Your task to perform on an android device: Open Google Chrome Image 0: 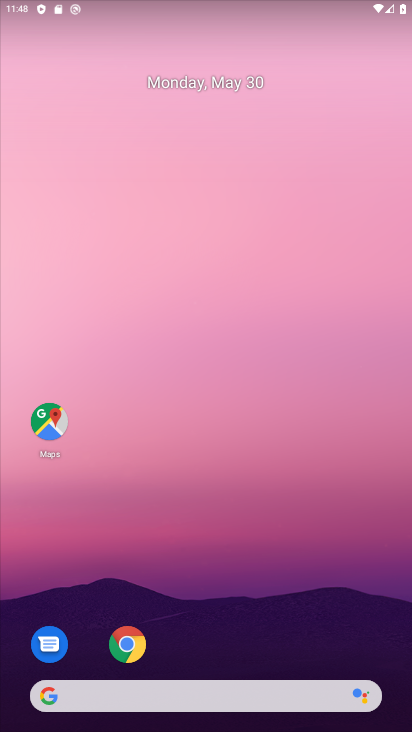
Step 0: drag from (258, 2) to (256, 46)
Your task to perform on an android device: Open Google Chrome Image 1: 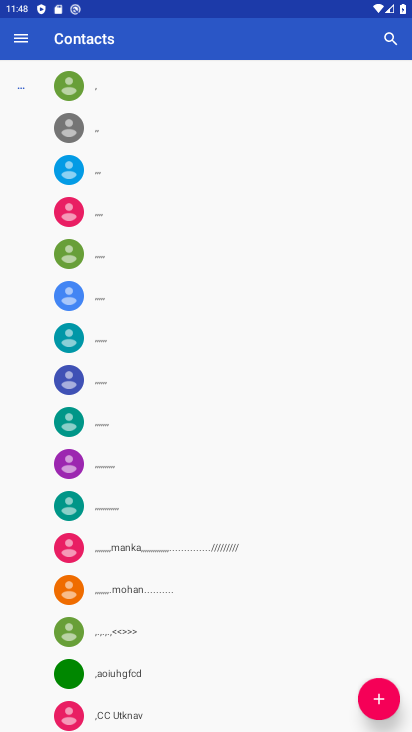
Step 1: press home button
Your task to perform on an android device: Open Google Chrome Image 2: 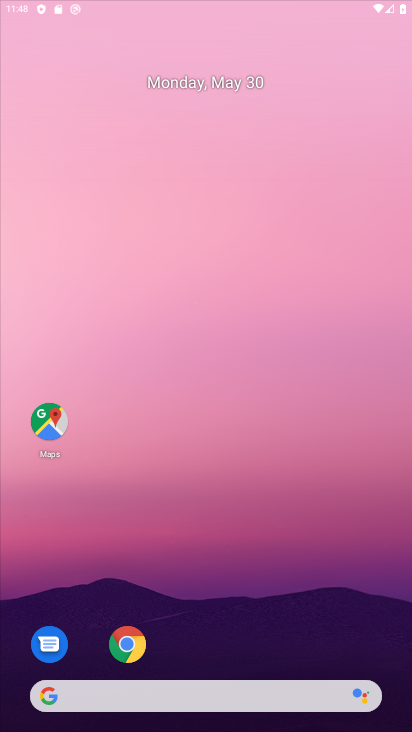
Step 2: drag from (211, 622) to (292, 88)
Your task to perform on an android device: Open Google Chrome Image 3: 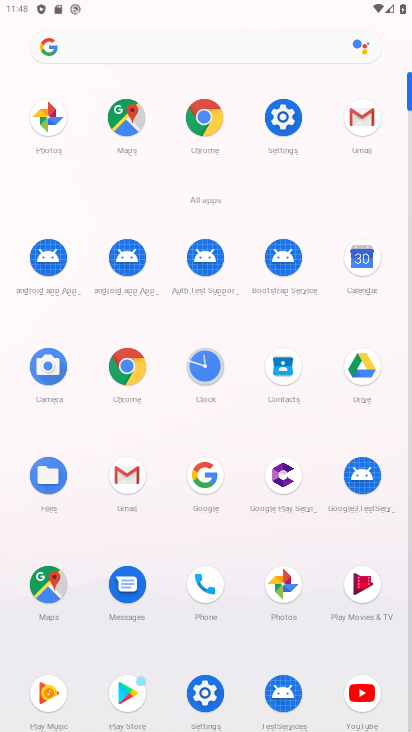
Step 3: click (120, 364)
Your task to perform on an android device: Open Google Chrome Image 4: 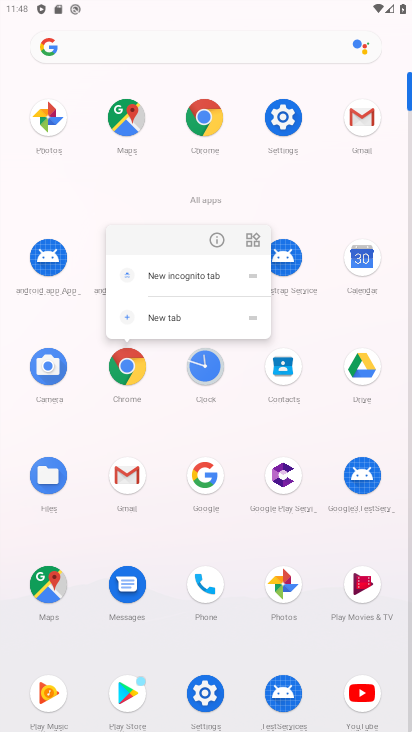
Step 4: click (213, 241)
Your task to perform on an android device: Open Google Chrome Image 5: 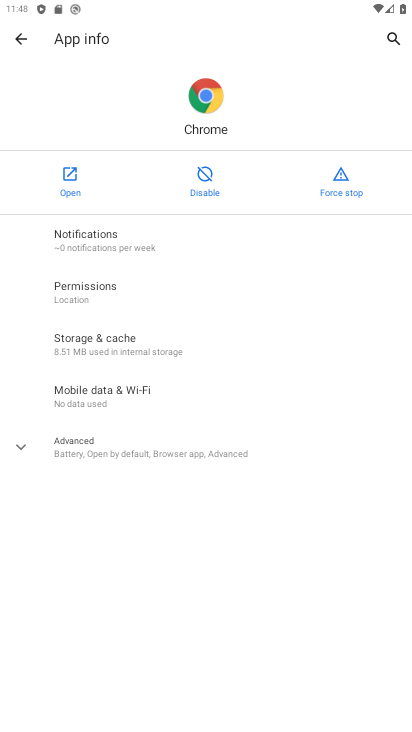
Step 5: click (58, 184)
Your task to perform on an android device: Open Google Chrome Image 6: 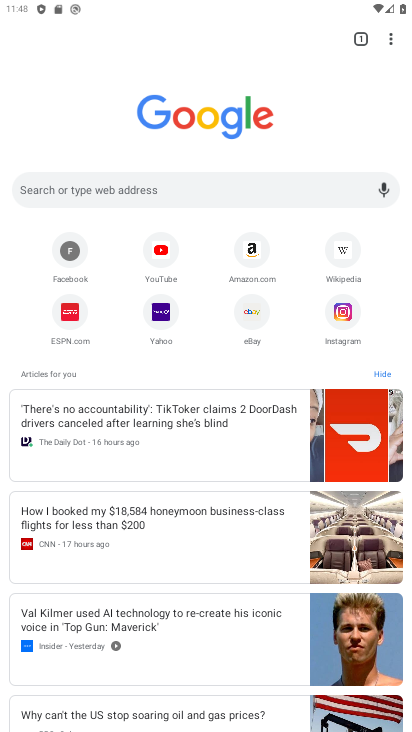
Step 6: click (382, 37)
Your task to perform on an android device: Open Google Chrome Image 7: 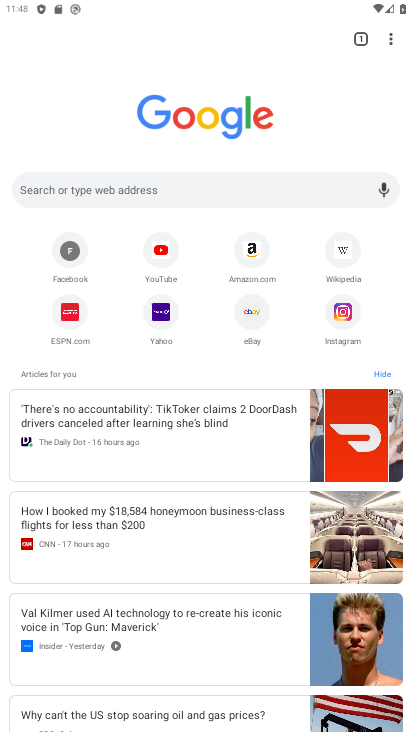
Step 7: task complete